Your task to perform on an android device: Show me popular videos on Youtube Image 0: 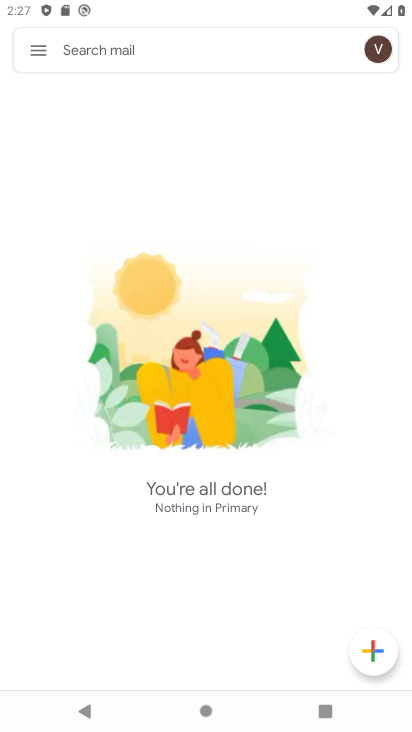
Step 0: press home button
Your task to perform on an android device: Show me popular videos on Youtube Image 1: 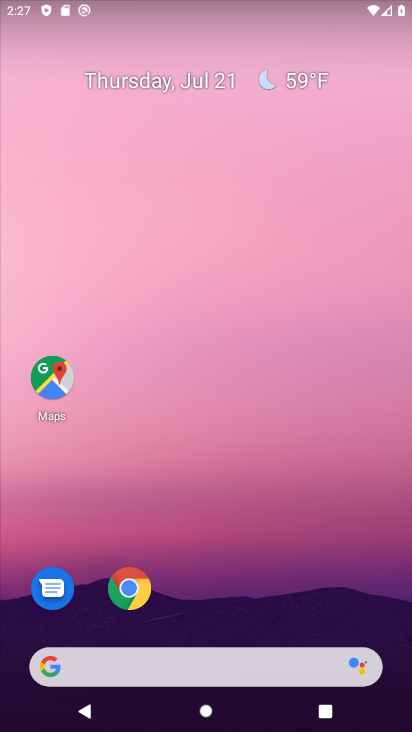
Step 1: drag from (401, 696) to (371, 50)
Your task to perform on an android device: Show me popular videos on Youtube Image 2: 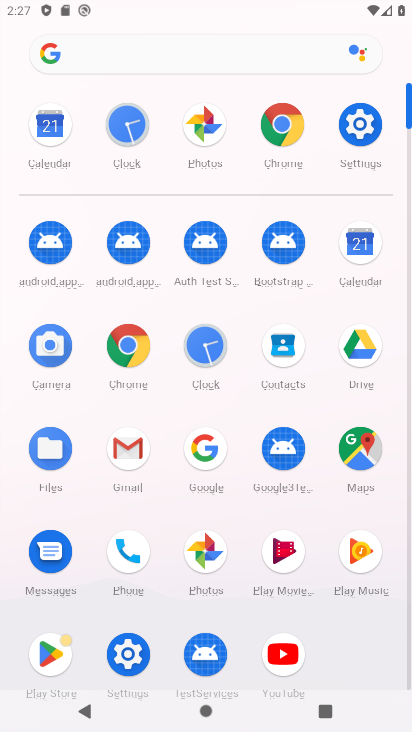
Step 2: click (275, 648)
Your task to perform on an android device: Show me popular videos on Youtube Image 3: 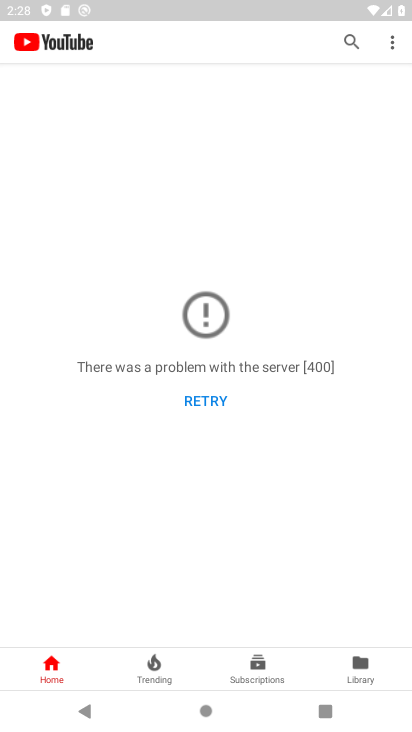
Step 3: click (354, 684)
Your task to perform on an android device: Show me popular videos on Youtube Image 4: 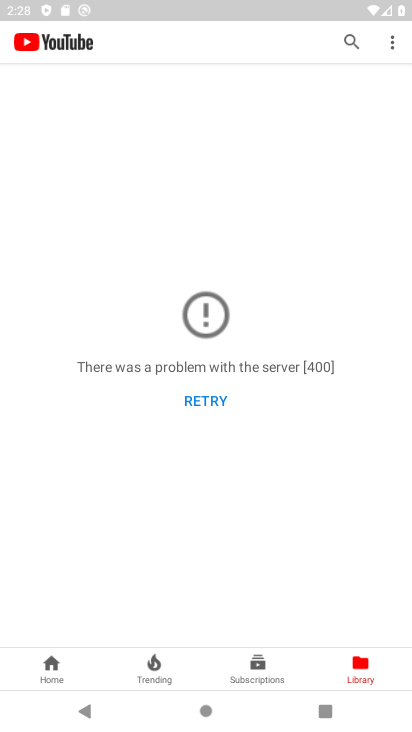
Step 4: task complete